Your task to perform on an android device: Search for Mexican restaurants on Maps Image 0: 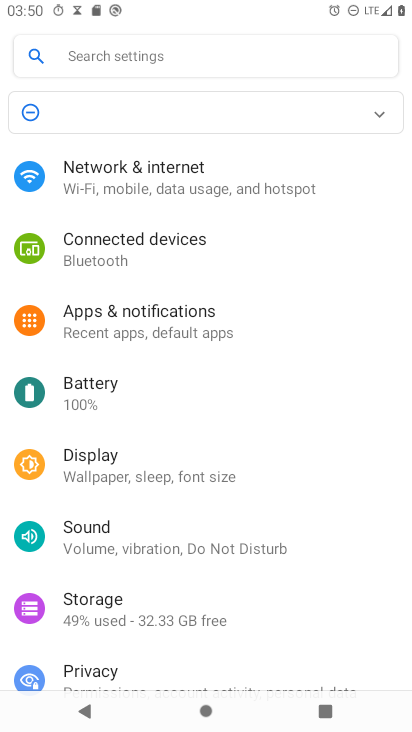
Step 0: click (175, 653)
Your task to perform on an android device: Search for Mexican restaurants on Maps Image 1: 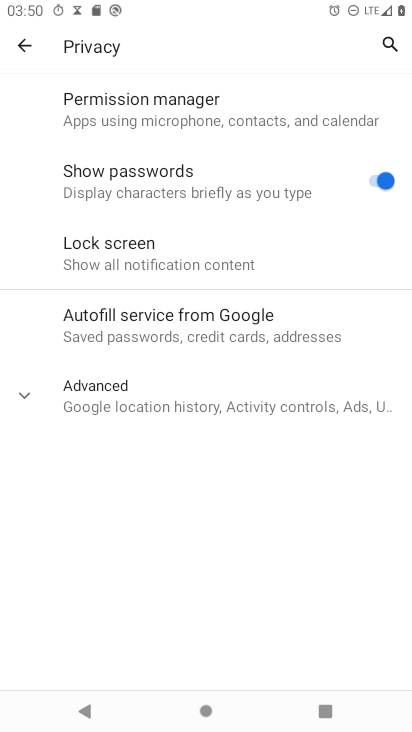
Step 1: press home button
Your task to perform on an android device: Search for Mexican restaurants on Maps Image 2: 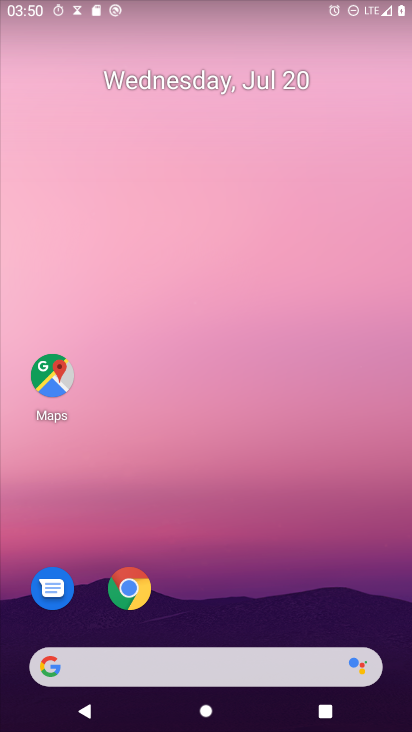
Step 2: drag from (192, 589) to (188, 39)
Your task to perform on an android device: Search for Mexican restaurants on Maps Image 3: 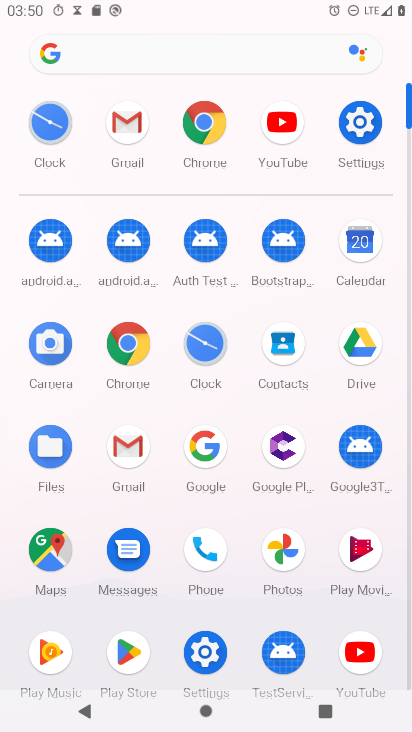
Step 3: click (43, 550)
Your task to perform on an android device: Search for Mexican restaurants on Maps Image 4: 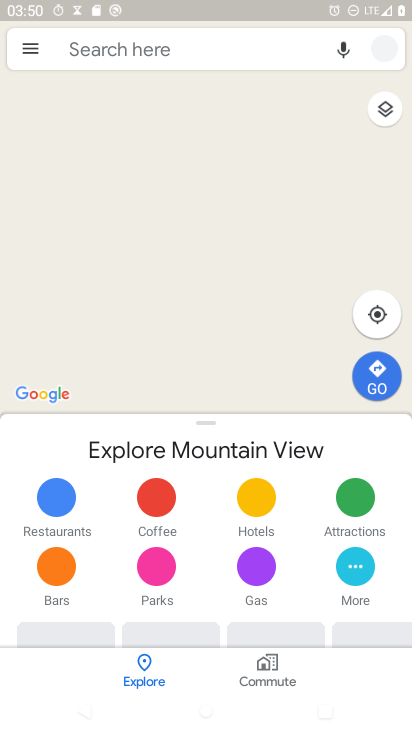
Step 4: click (163, 57)
Your task to perform on an android device: Search for Mexican restaurants on Maps Image 5: 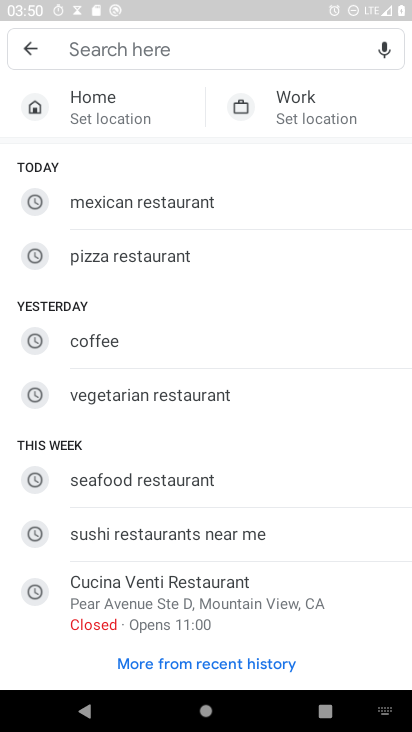
Step 5: click (160, 203)
Your task to perform on an android device: Search for Mexican restaurants on Maps Image 6: 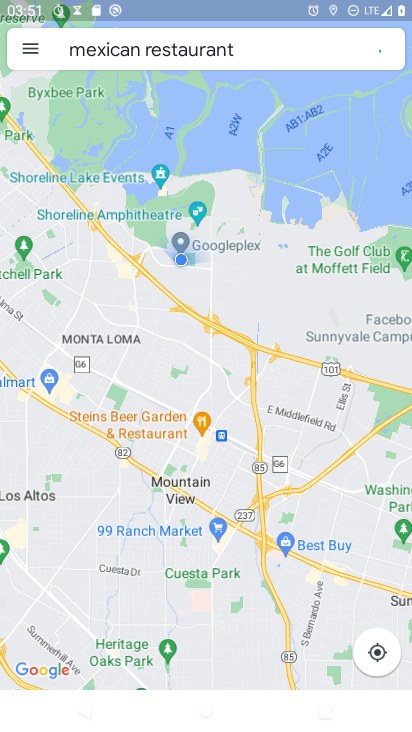
Step 6: task complete